Your task to perform on an android device: Open my contact list Image 0: 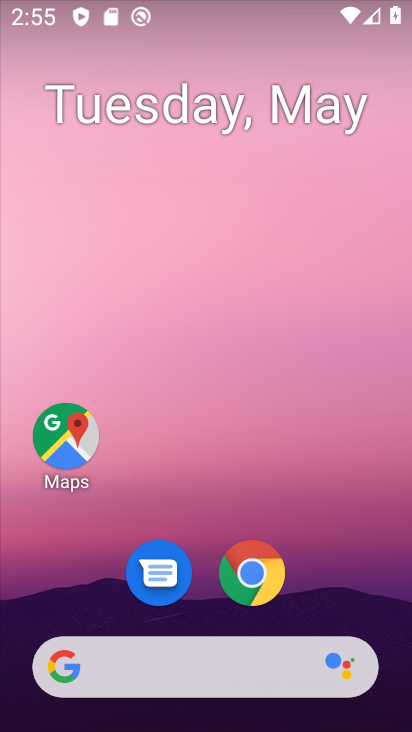
Step 0: drag from (319, 561) to (313, 61)
Your task to perform on an android device: Open my contact list Image 1: 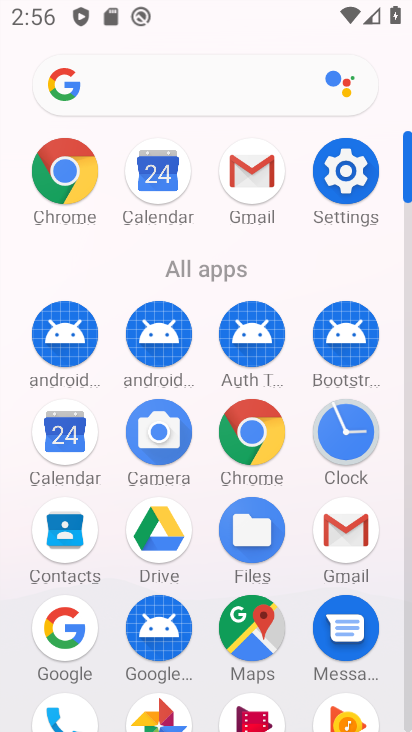
Step 1: click (4, 304)
Your task to perform on an android device: Open my contact list Image 2: 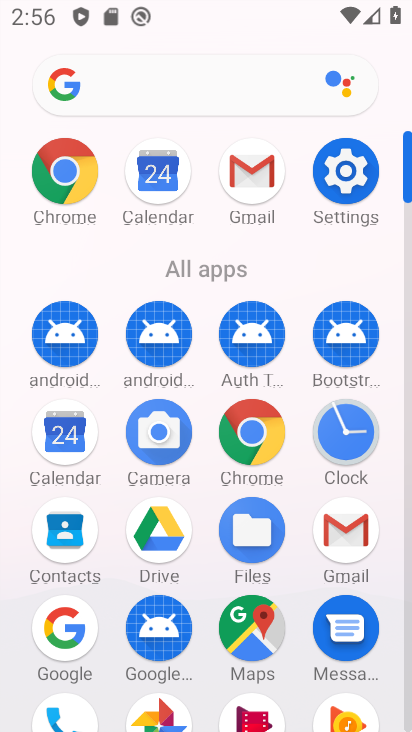
Step 2: drag from (16, 593) to (31, 272)
Your task to perform on an android device: Open my contact list Image 3: 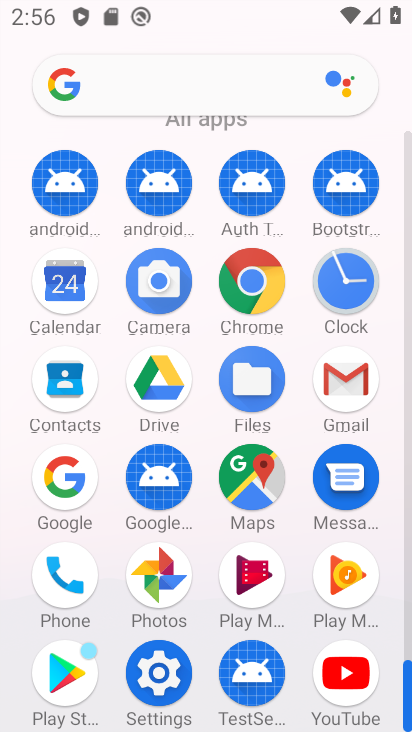
Step 3: click (61, 372)
Your task to perform on an android device: Open my contact list Image 4: 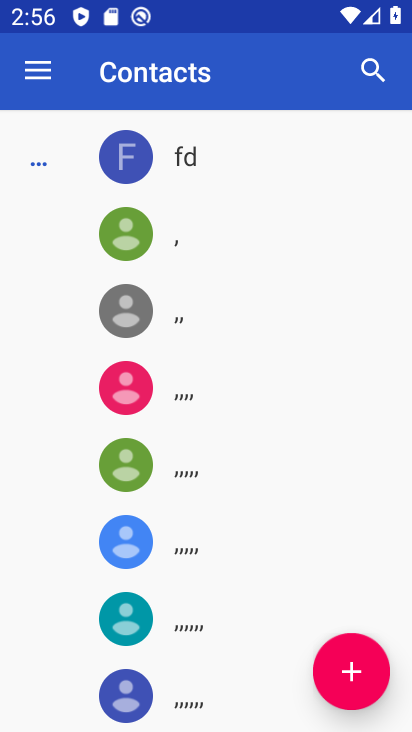
Step 4: task complete